Your task to perform on an android device: Open Chrome and go to the settings page Image 0: 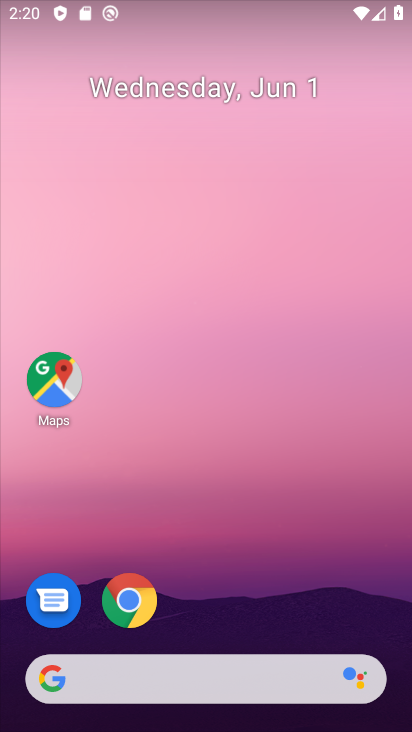
Step 0: drag from (196, 625) to (104, 227)
Your task to perform on an android device: Open Chrome and go to the settings page Image 1: 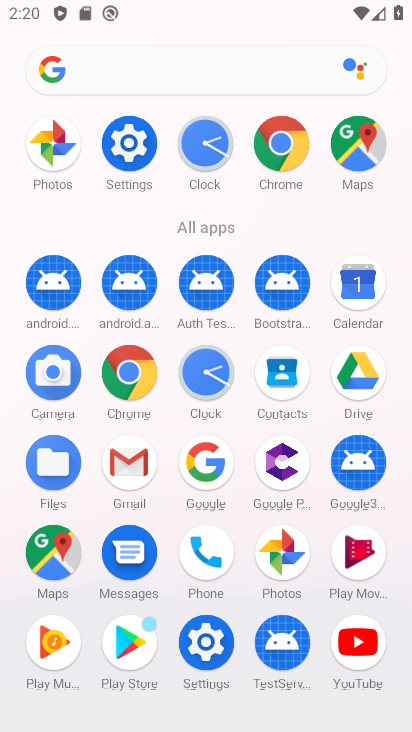
Step 1: click (137, 369)
Your task to perform on an android device: Open Chrome and go to the settings page Image 2: 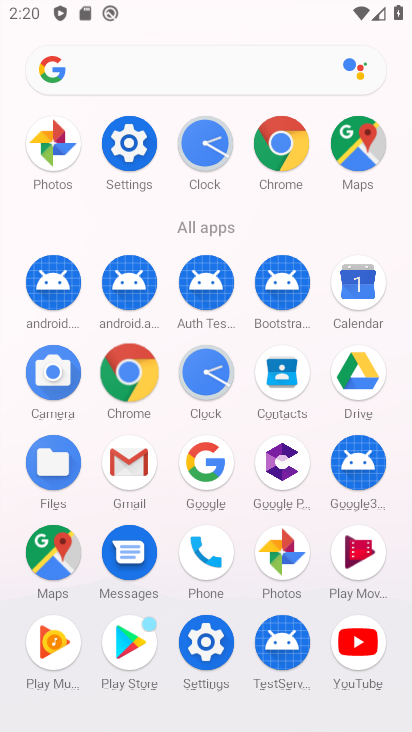
Step 2: click (137, 369)
Your task to perform on an android device: Open Chrome and go to the settings page Image 3: 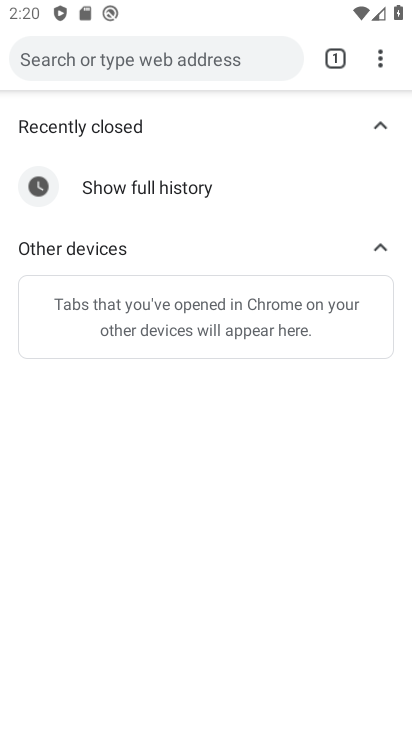
Step 3: drag from (374, 66) to (144, 558)
Your task to perform on an android device: Open Chrome and go to the settings page Image 4: 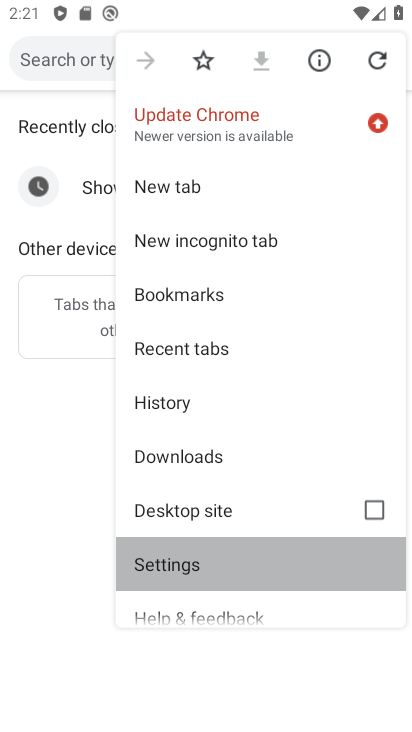
Step 4: click (151, 553)
Your task to perform on an android device: Open Chrome and go to the settings page Image 5: 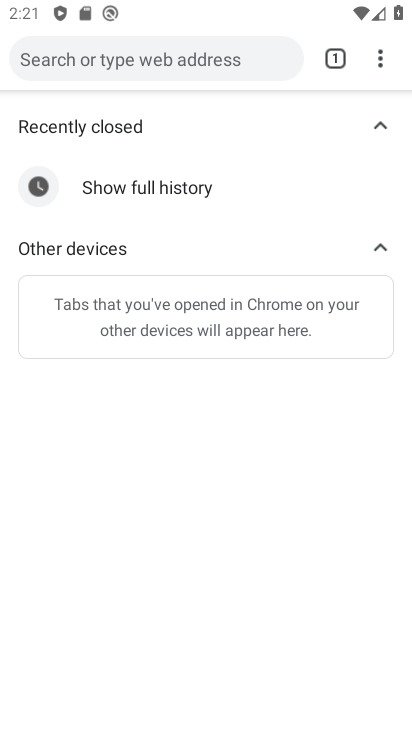
Step 5: click (153, 555)
Your task to perform on an android device: Open Chrome and go to the settings page Image 6: 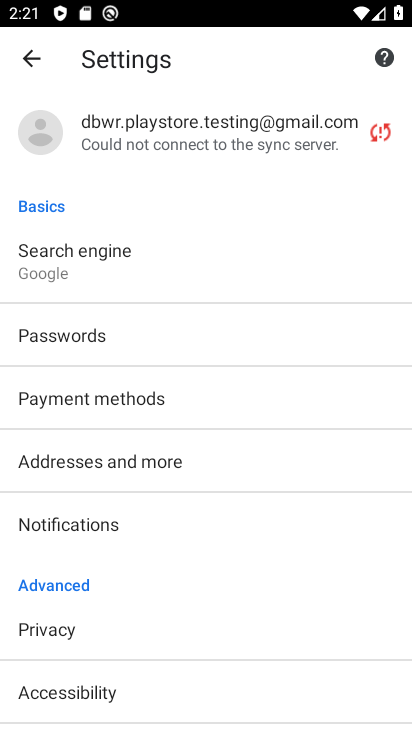
Step 6: task complete